Your task to perform on an android device: check android version Image 0: 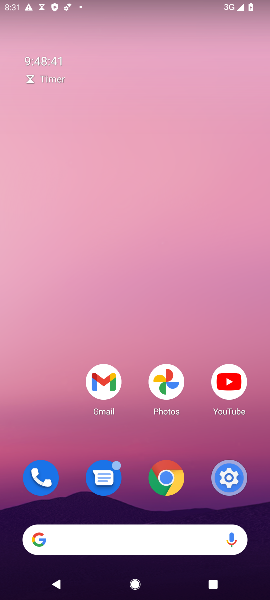
Step 0: drag from (204, 447) to (197, 167)
Your task to perform on an android device: check android version Image 1: 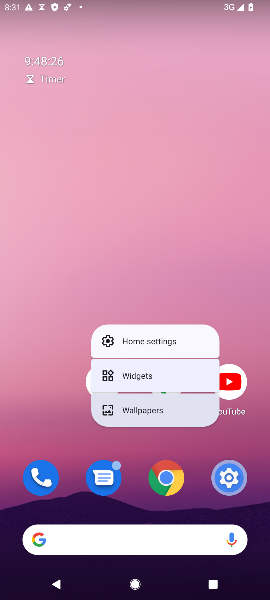
Step 1: drag from (257, 469) to (212, 205)
Your task to perform on an android device: check android version Image 2: 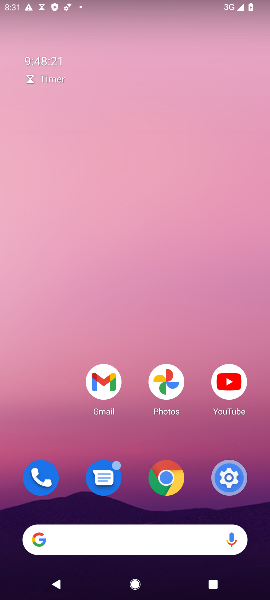
Step 2: click (223, 472)
Your task to perform on an android device: check android version Image 3: 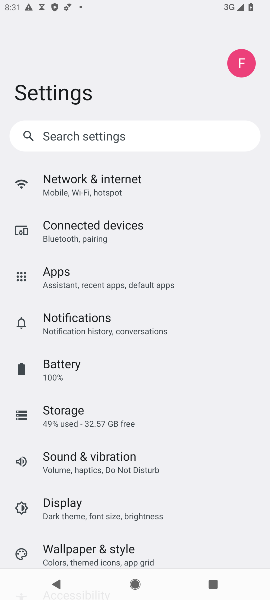
Step 3: drag from (132, 511) to (115, 137)
Your task to perform on an android device: check android version Image 4: 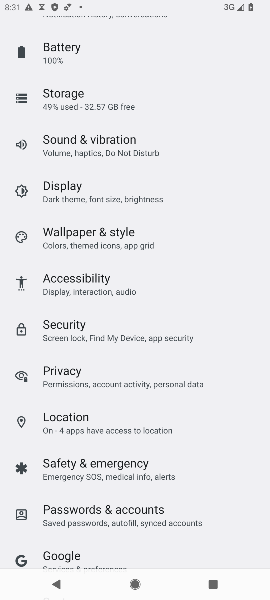
Step 4: drag from (118, 537) to (99, 133)
Your task to perform on an android device: check android version Image 5: 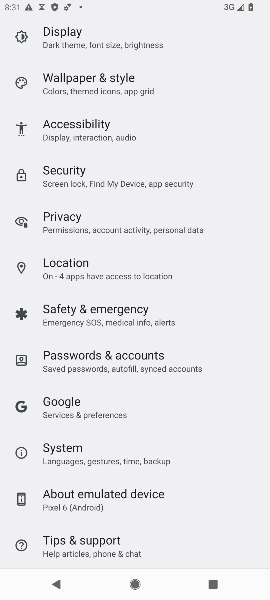
Step 5: click (104, 502)
Your task to perform on an android device: check android version Image 6: 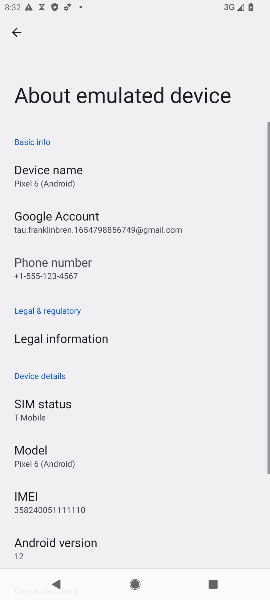
Step 6: click (131, 555)
Your task to perform on an android device: check android version Image 7: 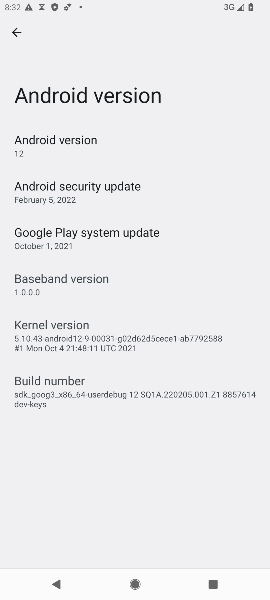
Step 7: task complete